Your task to perform on an android device: Go to Google maps Image 0: 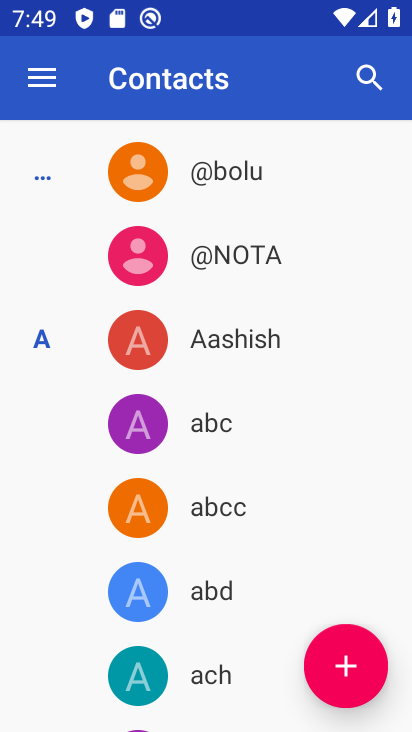
Step 0: press home button
Your task to perform on an android device: Go to Google maps Image 1: 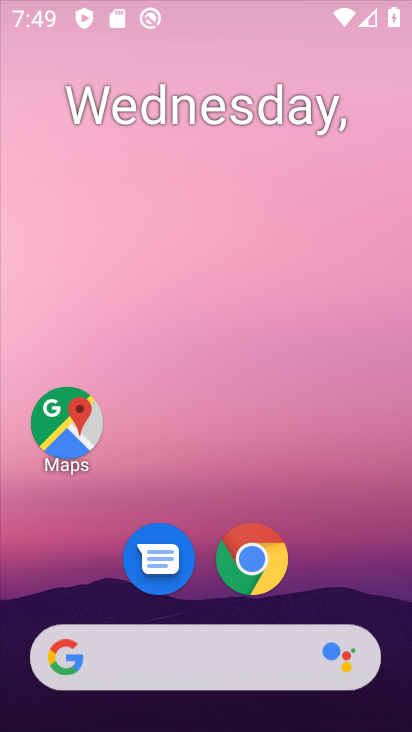
Step 1: drag from (220, 581) to (318, 61)
Your task to perform on an android device: Go to Google maps Image 2: 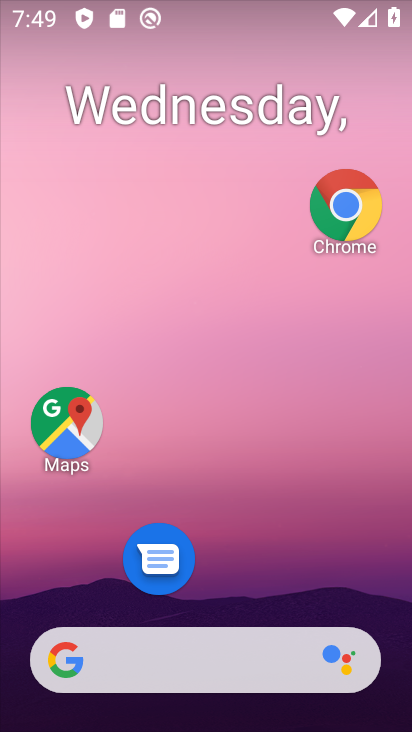
Step 2: click (69, 431)
Your task to perform on an android device: Go to Google maps Image 3: 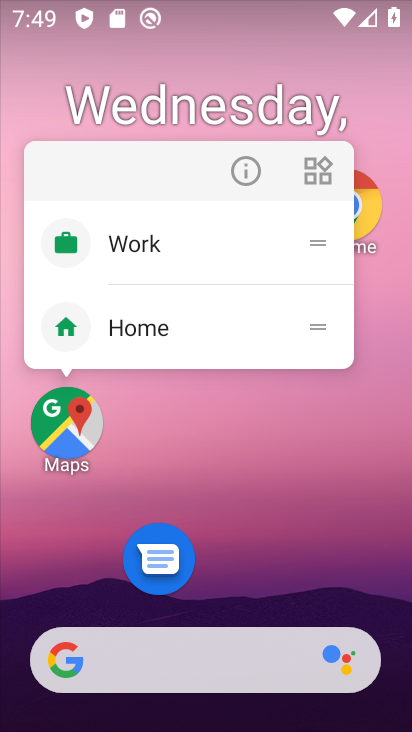
Step 3: click (246, 167)
Your task to perform on an android device: Go to Google maps Image 4: 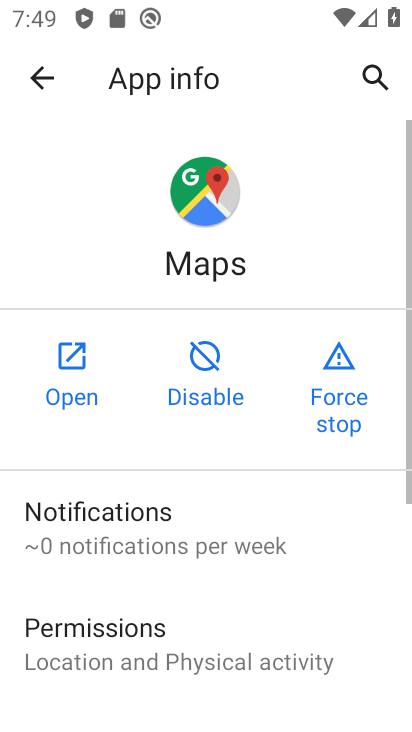
Step 4: click (78, 373)
Your task to perform on an android device: Go to Google maps Image 5: 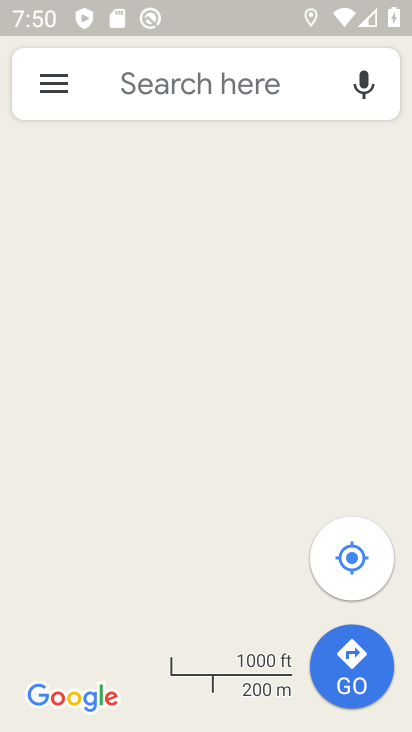
Step 5: task complete